Your task to perform on an android device: change the upload size in google photos Image 0: 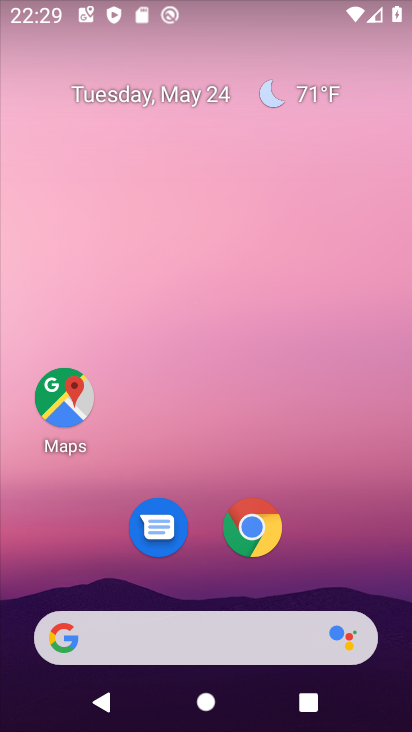
Step 0: drag from (195, 599) to (202, 7)
Your task to perform on an android device: change the upload size in google photos Image 1: 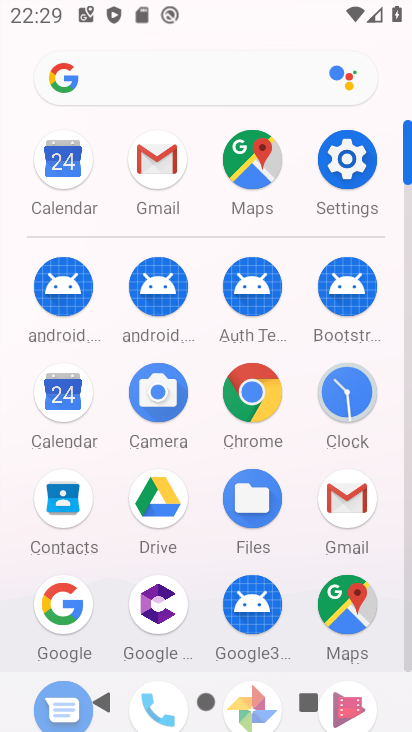
Step 1: drag from (207, 650) to (202, 327)
Your task to perform on an android device: change the upload size in google photos Image 2: 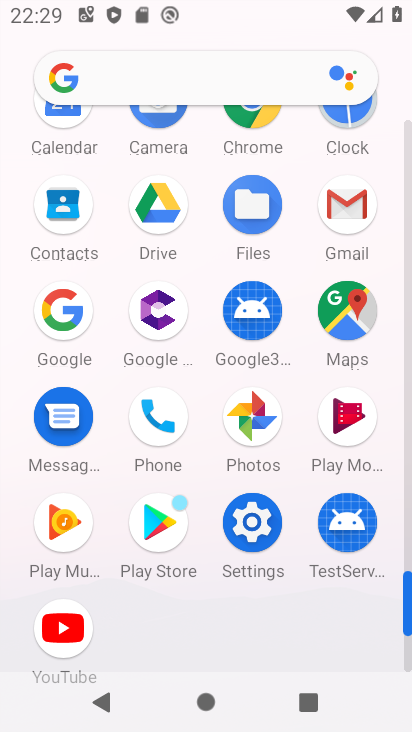
Step 2: click (248, 409)
Your task to perform on an android device: change the upload size in google photos Image 3: 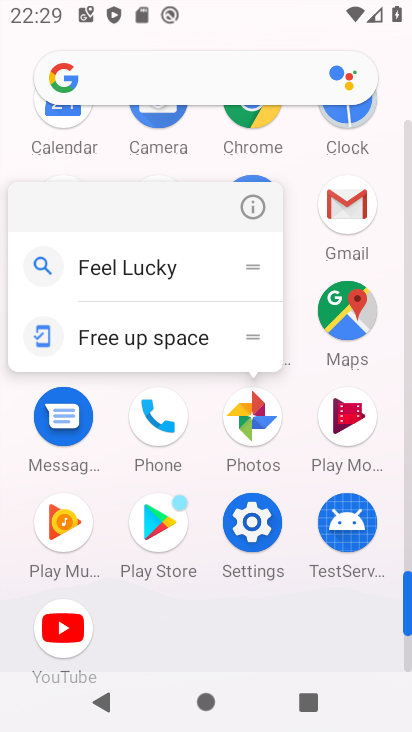
Step 3: click (248, 409)
Your task to perform on an android device: change the upload size in google photos Image 4: 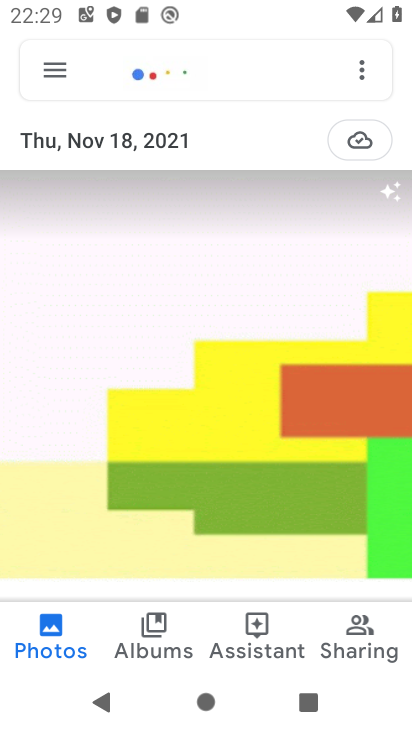
Step 4: click (64, 76)
Your task to perform on an android device: change the upload size in google photos Image 5: 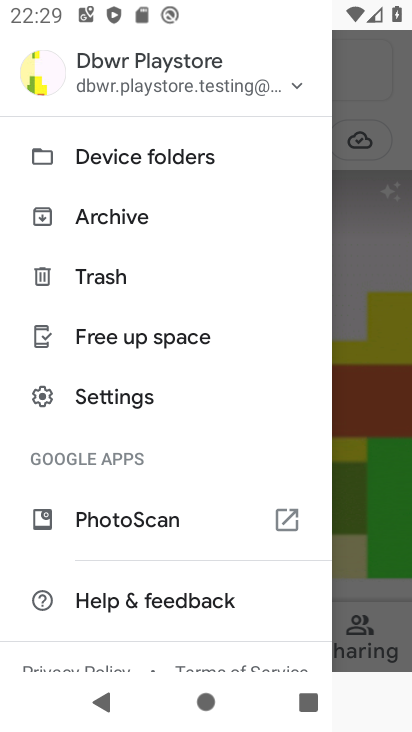
Step 5: click (145, 406)
Your task to perform on an android device: change the upload size in google photos Image 6: 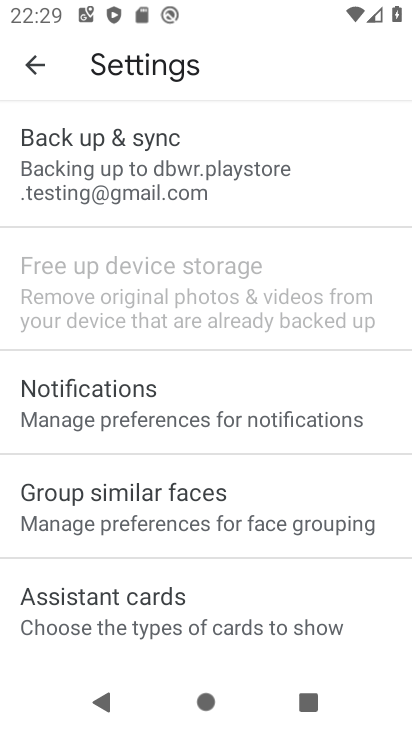
Step 6: click (122, 192)
Your task to perform on an android device: change the upload size in google photos Image 7: 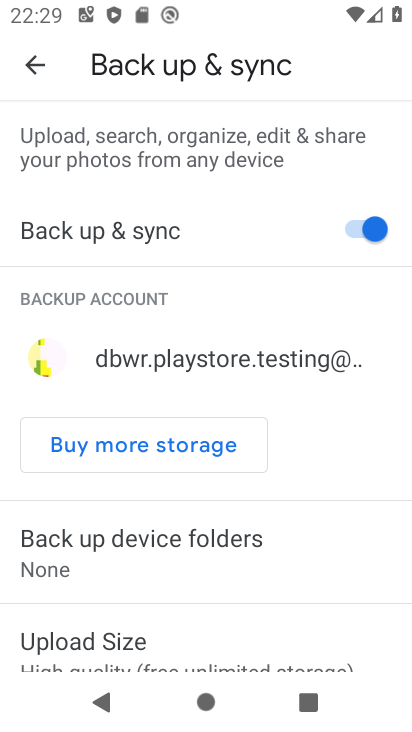
Step 7: drag from (209, 623) to (242, 223)
Your task to perform on an android device: change the upload size in google photos Image 8: 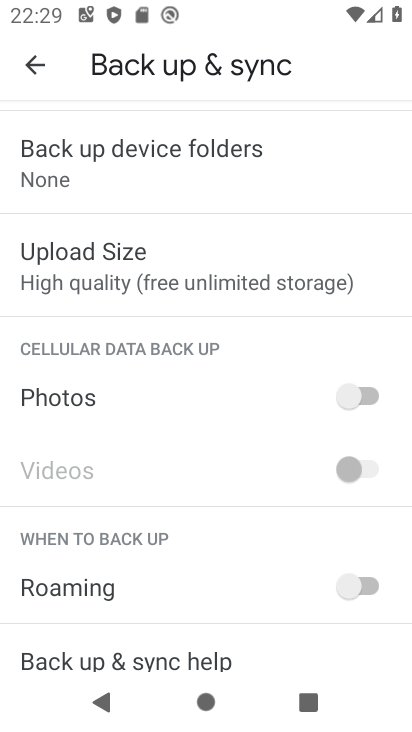
Step 8: click (208, 265)
Your task to perform on an android device: change the upload size in google photos Image 9: 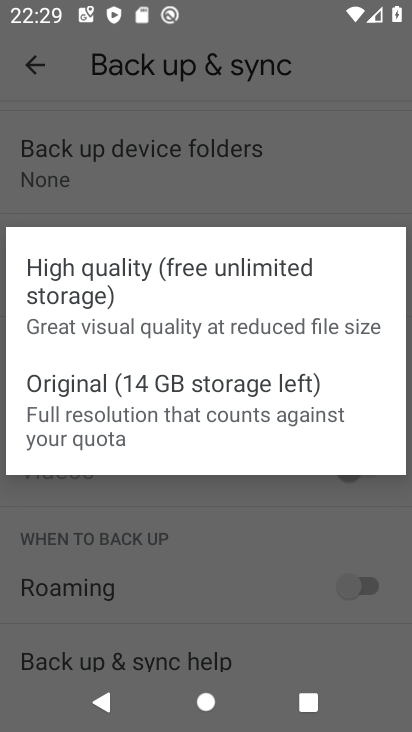
Step 9: click (138, 402)
Your task to perform on an android device: change the upload size in google photos Image 10: 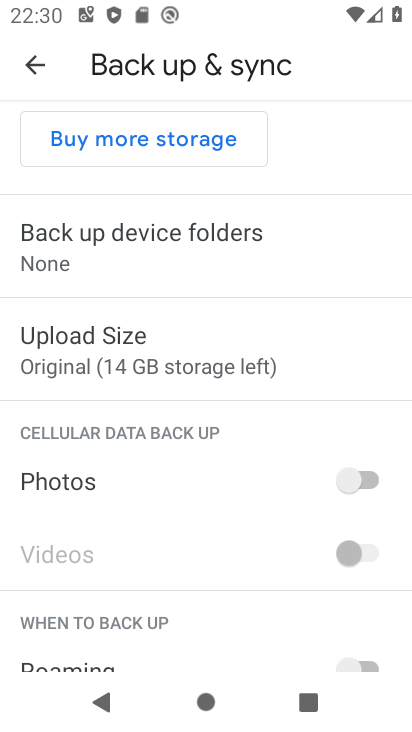
Step 10: task complete